Your task to perform on an android device: open chrome and create a bookmark for the current page Image 0: 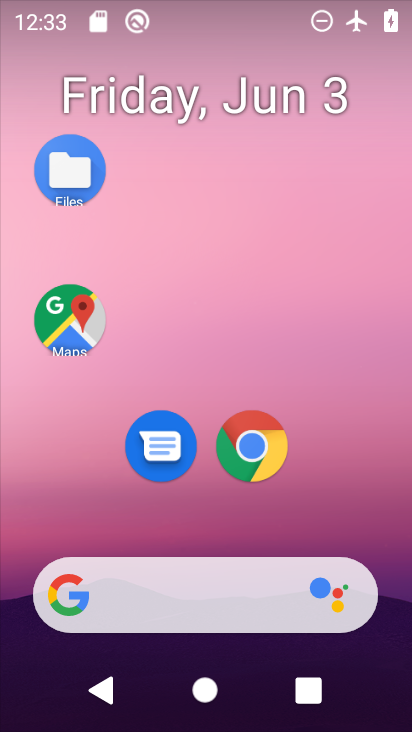
Step 0: drag from (265, 676) to (171, 46)
Your task to perform on an android device: open chrome and create a bookmark for the current page Image 1: 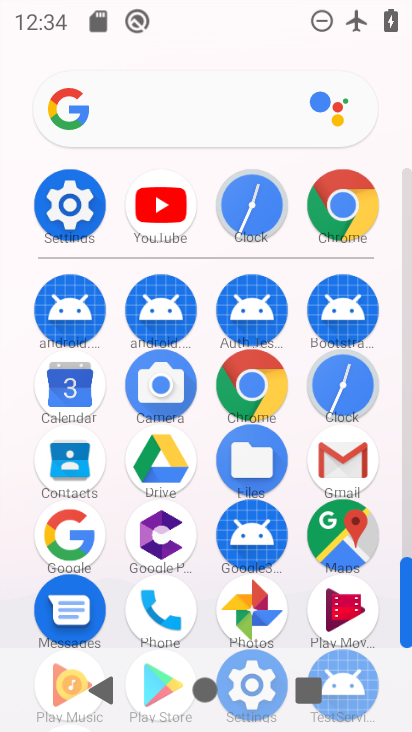
Step 1: click (83, 216)
Your task to perform on an android device: open chrome and create a bookmark for the current page Image 2: 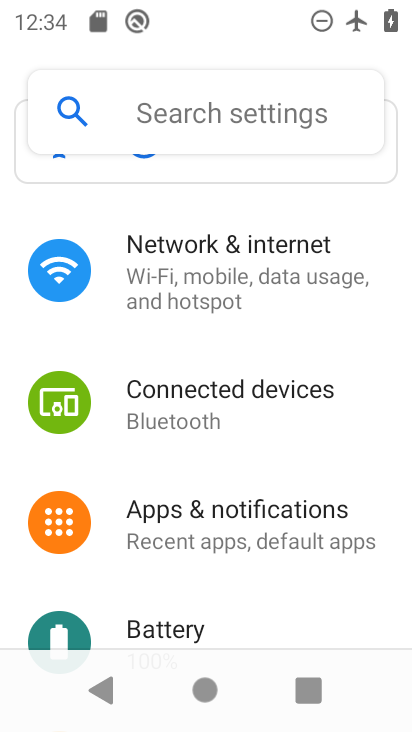
Step 2: click (233, 271)
Your task to perform on an android device: open chrome and create a bookmark for the current page Image 3: 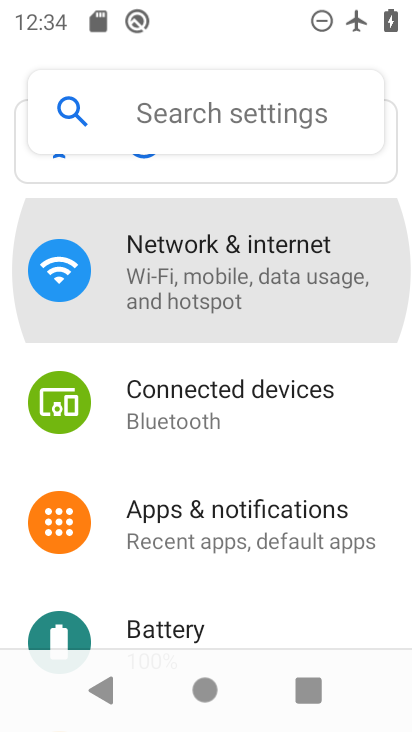
Step 3: click (234, 271)
Your task to perform on an android device: open chrome and create a bookmark for the current page Image 4: 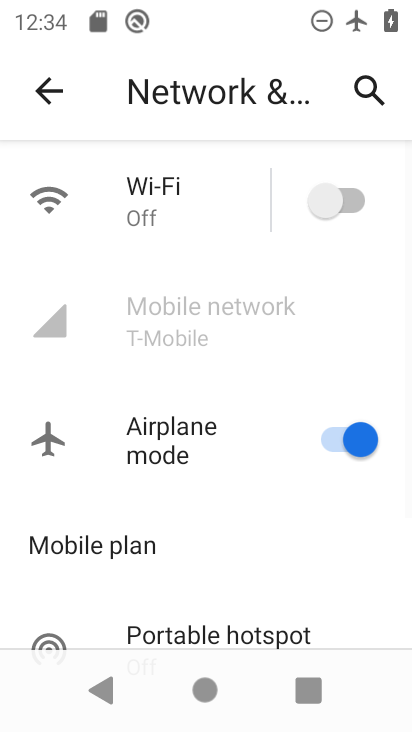
Step 4: click (321, 192)
Your task to perform on an android device: open chrome and create a bookmark for the current page Image 5: 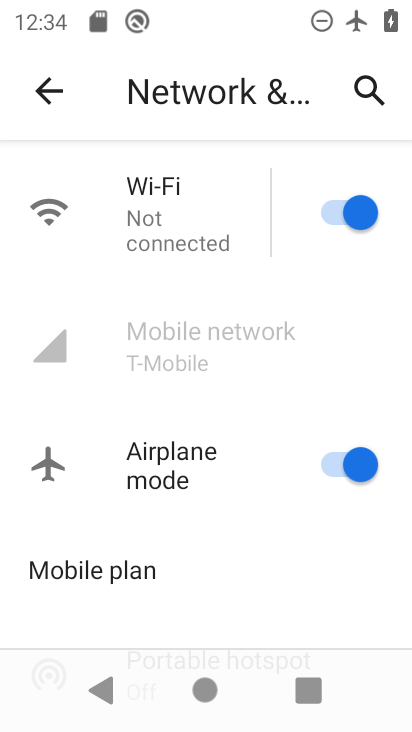
Step 5: click (359, 448)
Your task to perform on an android device: open chrome and create a bookmark for the current page Image 6: 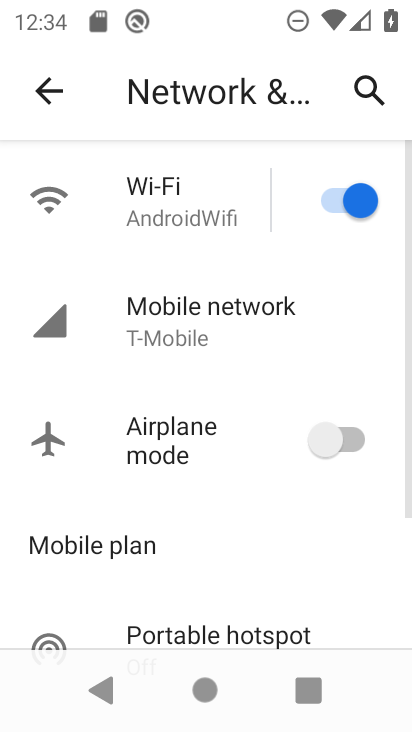
Step 6: press back button
Your task to perform on an android device: open chrome and create a bookmark for the current page Image 7: 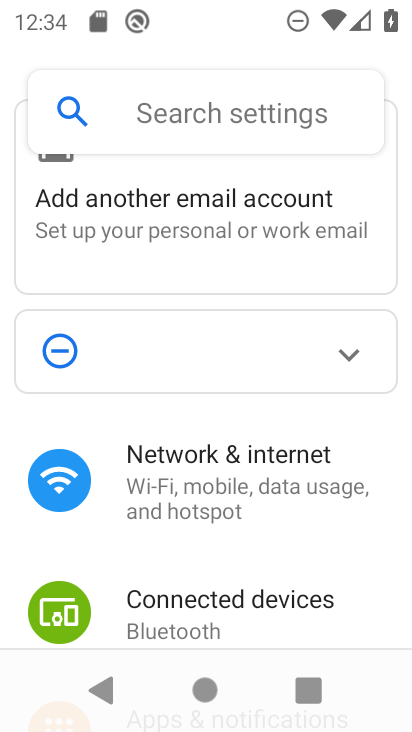
Step 7: press home button
Your task to perform on an android device: open chrome and create a bookmark for the current page Image 8: 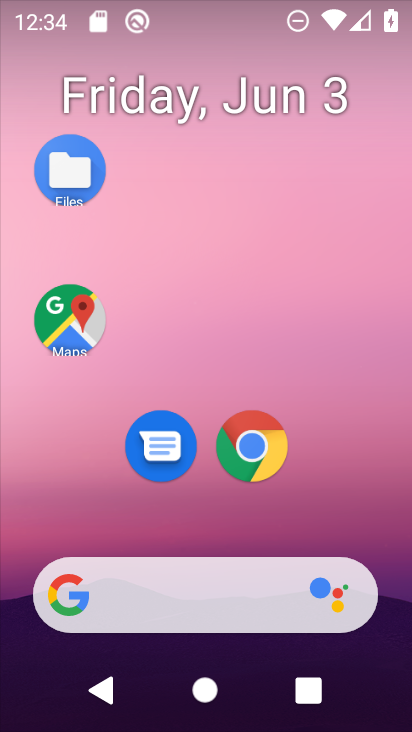
Step 8: drag from (256, 663) to (170, 146)
Your task to perform on an android device: open chrome and create a bookmark for the current page Image 9: 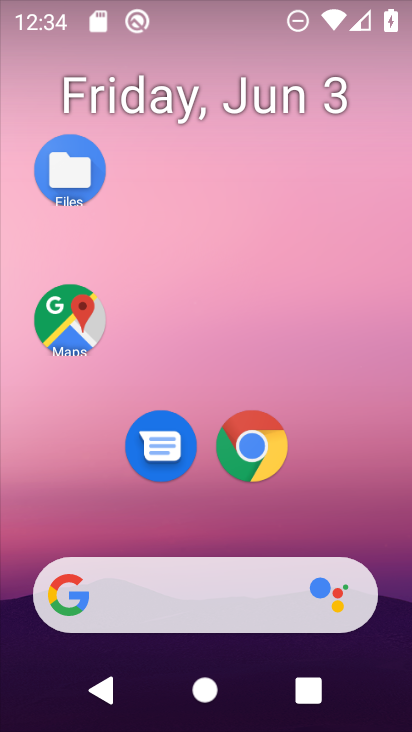
Step 9: drag from (231, 584) to (122, 34)
Your task to perform on an android device: open chrome and create a bookmark for the current page Image 10: 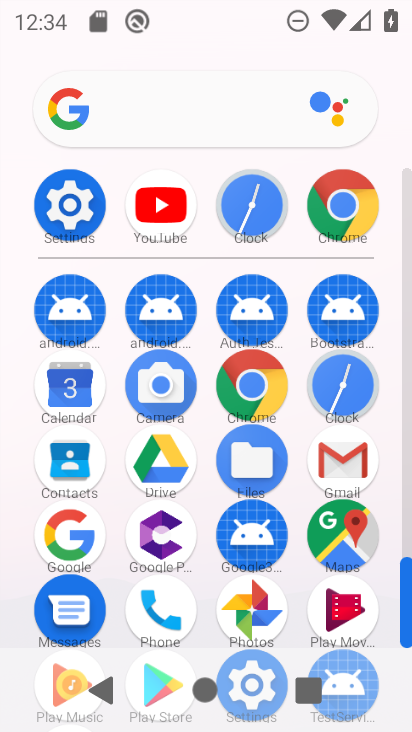
Step 10: click (253, 372)
Your task to perform on an android device: open chrome and create a bookmark for the current page Image 11: 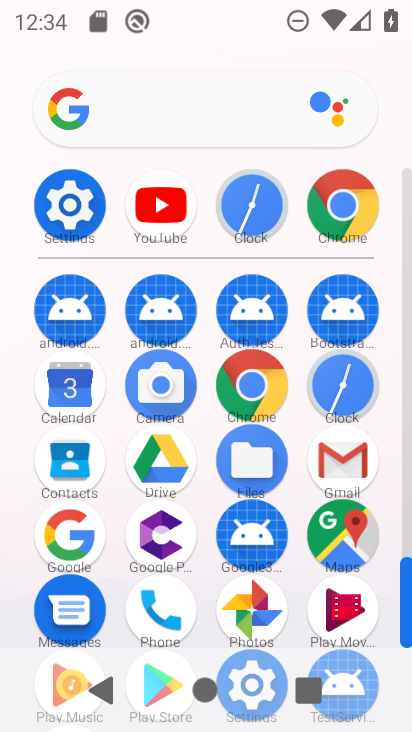
Step 11: click (253, 372)
Your task to perform on an android device: open chrome and create a bookmark for the current page Image 12: 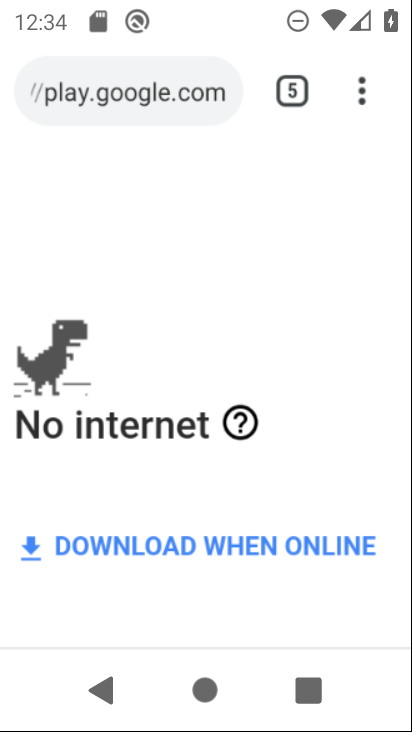
Step 12: click (252, 386)
Your task to perform on an android device: open chrome and create a bookmark for the current page Image 13: 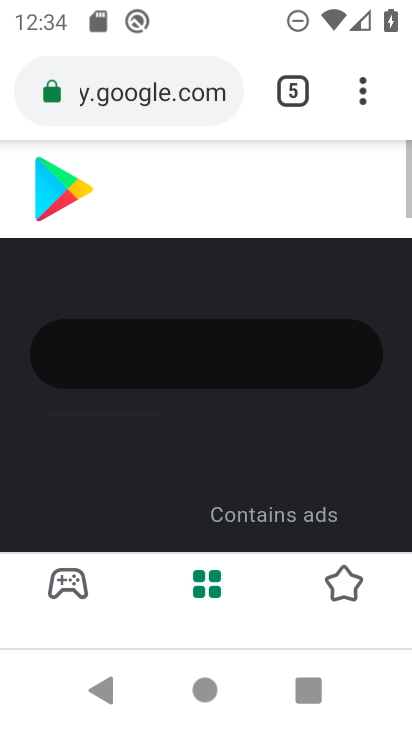
Step 13: click (363, 92)
Your task to perform on an android device: open chrome and create a bookmark for the current page Image 14: 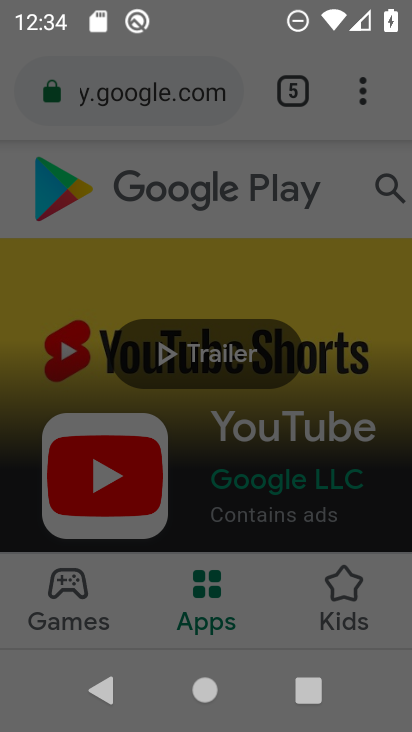
Step 14: click (362, 93)
Your task to perform on an android device: open chrome and create a bookmark for the current page Image 15: 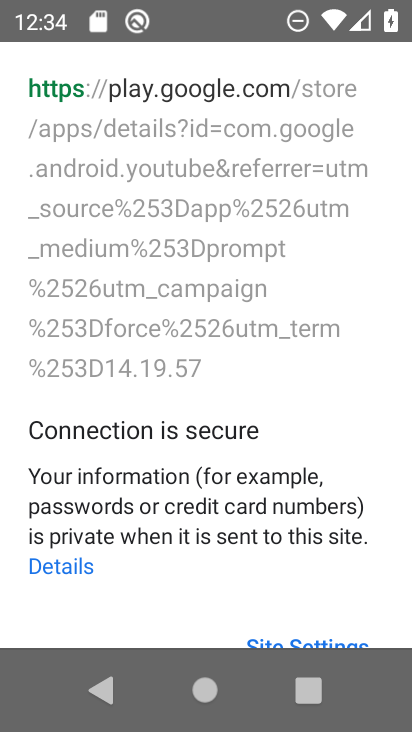
Step 15: click (359, 676)
Your task to perform on an android device: open chrome and create a bookmark for the current page Image 16: 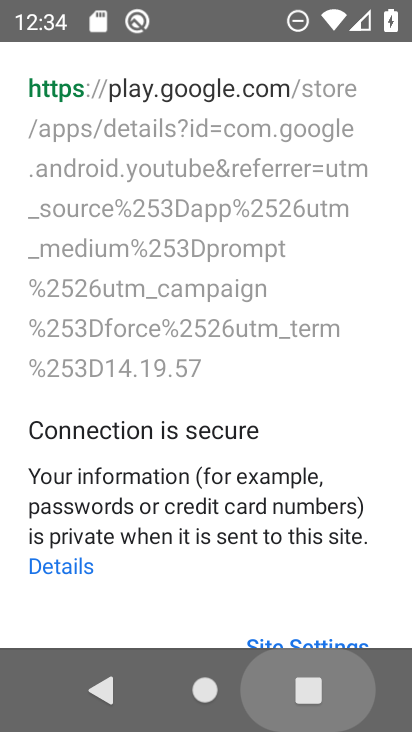
Step 16: click (357, 678)
Your task to perform on an android device: open chrome and create a bookmark for the current page Image 17: 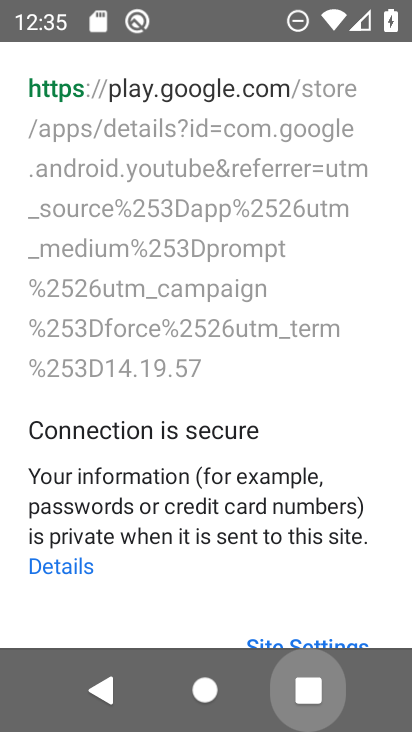
Step 17: click (357, 678)
Your task to perform on an android device: open chrome and create a bookmark for the current page Image 18: 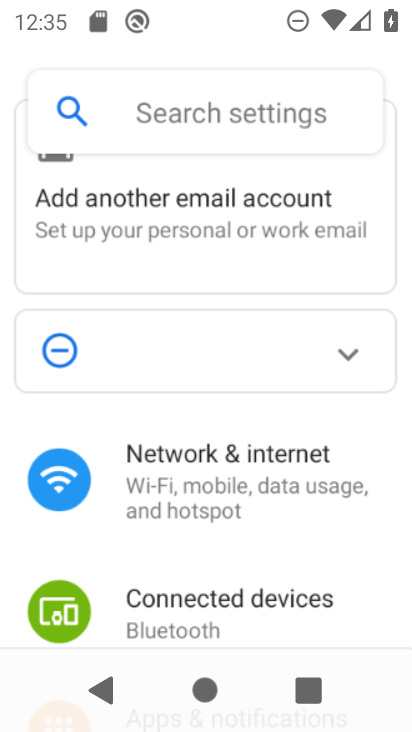
Step 18: press back button
Your task to perform on an android device: open chrome and create a bookmark for the current page Image 19: 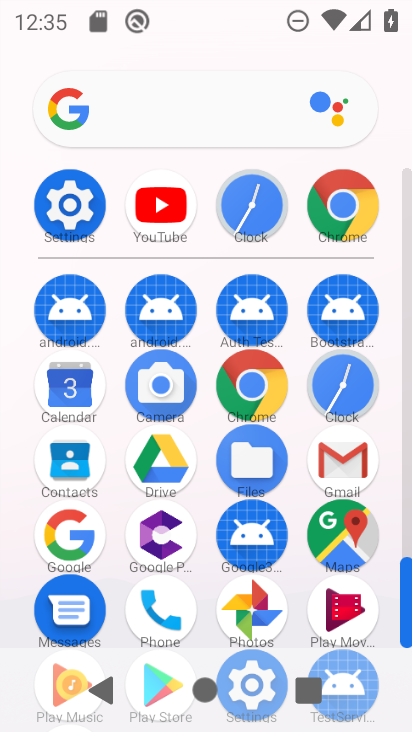
Step 19: click (346, 203)
Your task to perform on an android device: open chrome and create a bookmark for the current page Image 20: 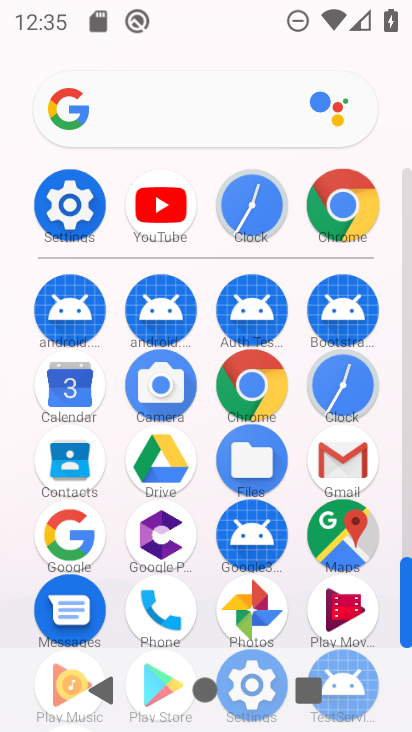
Step 20: click (346, 203)
Your task to perform on an android device: open chrome and create a bookmark for the current page Image 21: 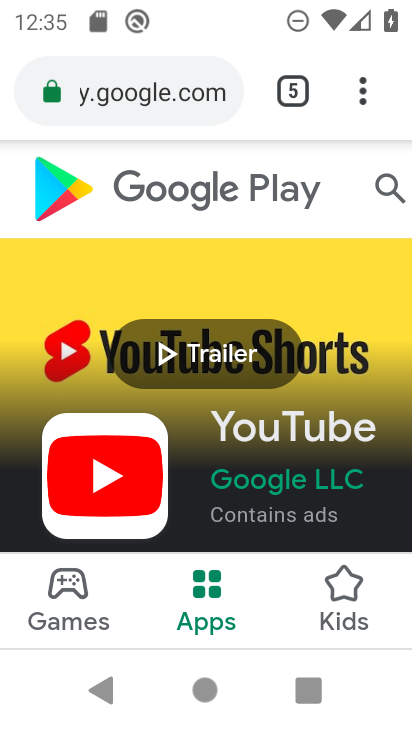
Step 21: drag from (356, 97) to (64, 180)
Your task to perform on an android device: open chrome and create a bookmark for the current page Image 22: 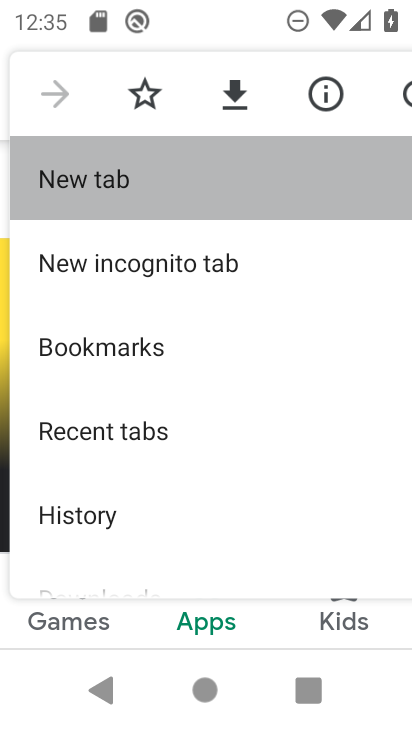
Step 22: click (64, 180)
Your task to perform on an android device: open chrome and create a bookmark for the current page Image 23: 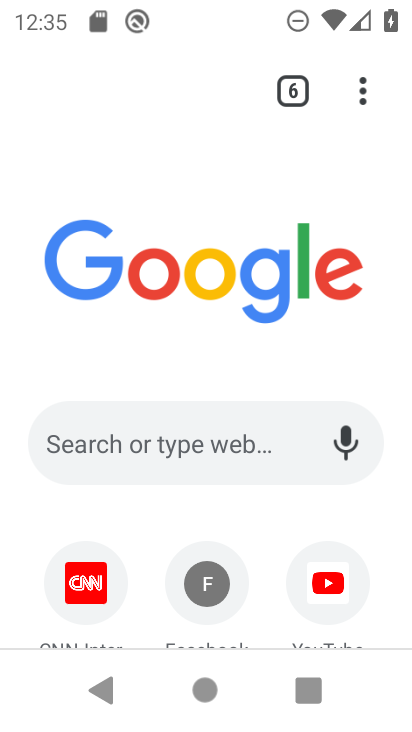
Step 23: click (39, 439)
Your task to perform on an android device: open chrome and create a bookmark for the current page Image 24: 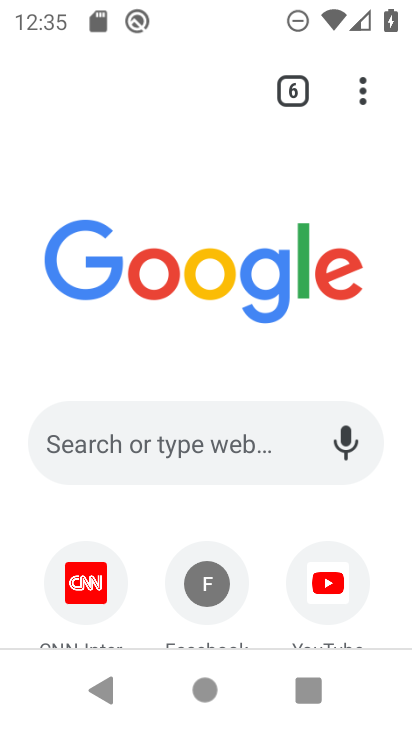
Step 24: click (61, 455)
Your task to perform on an android device: open chrome and create a bookmark for the current page Image 25: 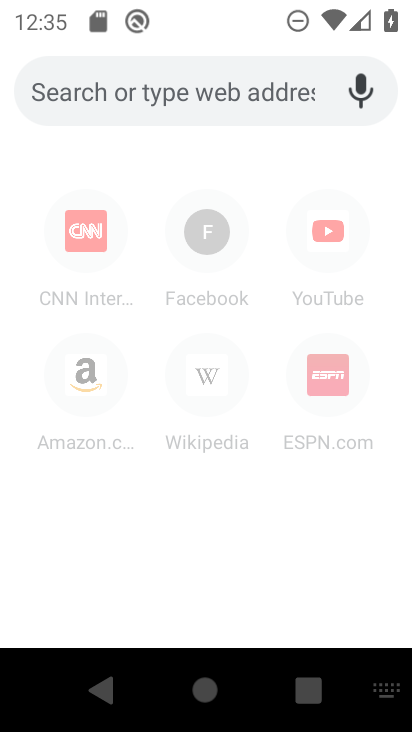
Step 25: type "www.snapdeal.com"
Your task to perform on an android device: open chrome and create a bookmark for the current page Image 26: 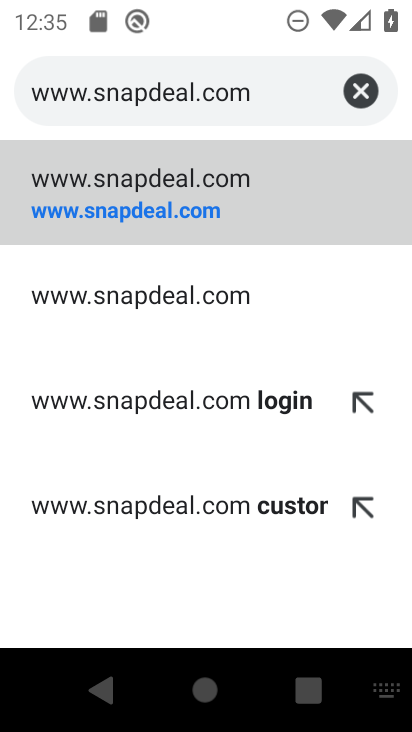
Step 26: click (131, 210)
Your task to perform on an android device: open chrome and create a bookmark for the current page Image 27: 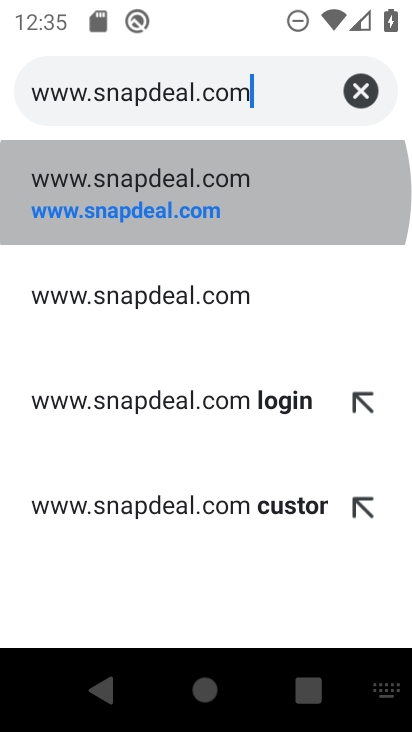
Step 27: click (131, 210)
Your task to perform on an android device: open chrome and create a bookmark for the current page Image 28: 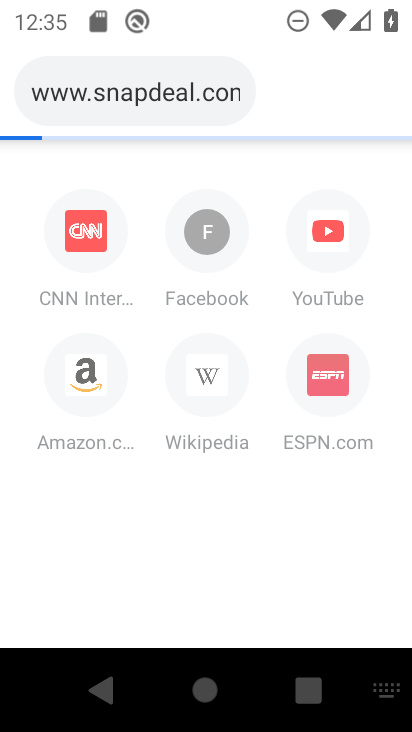
Step 28: click (130, 209)
Your task to perform on an android device: open chrome and create a bookmark for the current page Image 29: 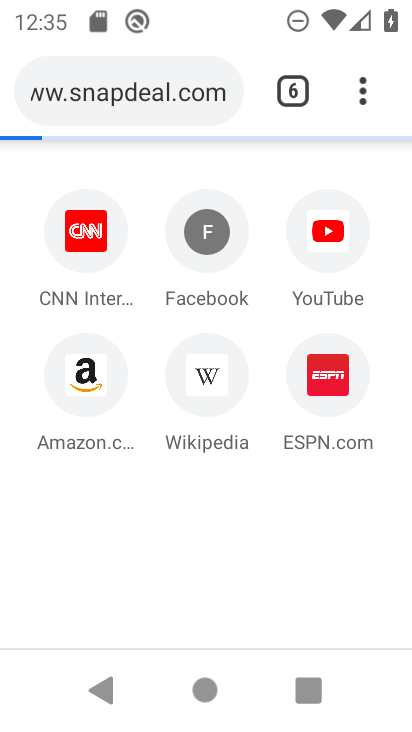
Step 29: click (130, 209)
Your task to perform on an android device: open chrome and create a bookmark for the current page Image 30: 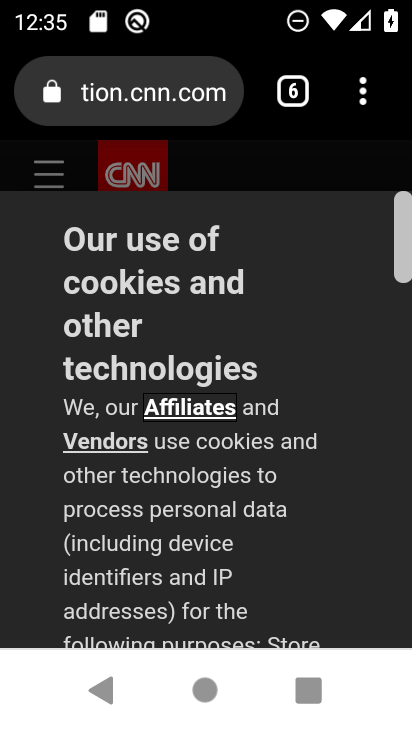
Step 30: drag from (359, 93) to (145, 89)
Your task to perform on an android device: open chrome and create a bookmark for the current page Image 31: 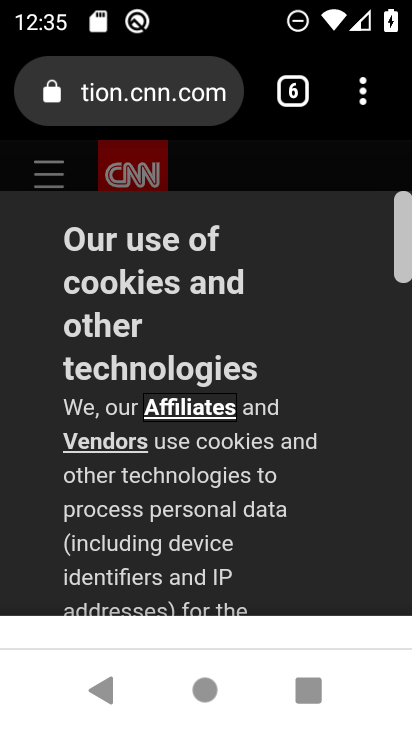
Step 31: click (145, 89)
Your task to perform on an android device: open chrome and create a bookmark for the current page Image 32: 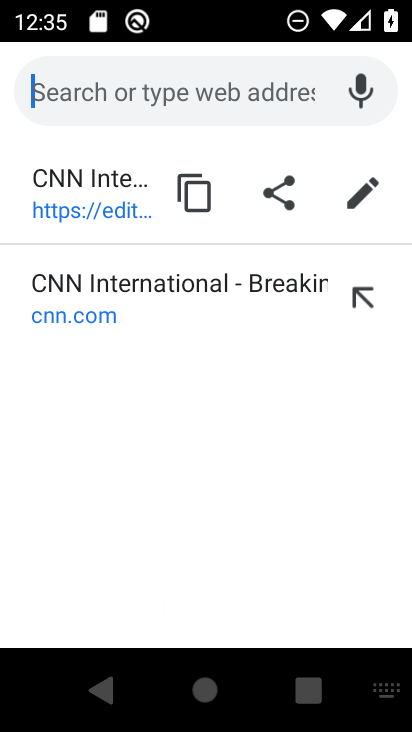
Step 32: task complete